Your task to perform on an android device: delete a single message in the gmail app Image 0: 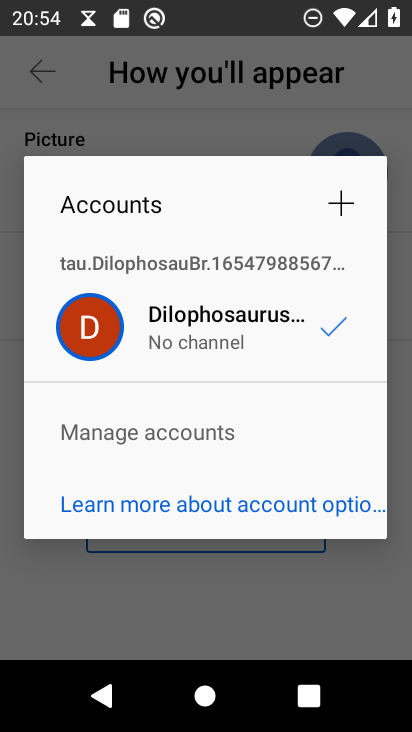
Step 0: press home button
Your task to perform on an android device: delete a single message in the gmail app Image 1: 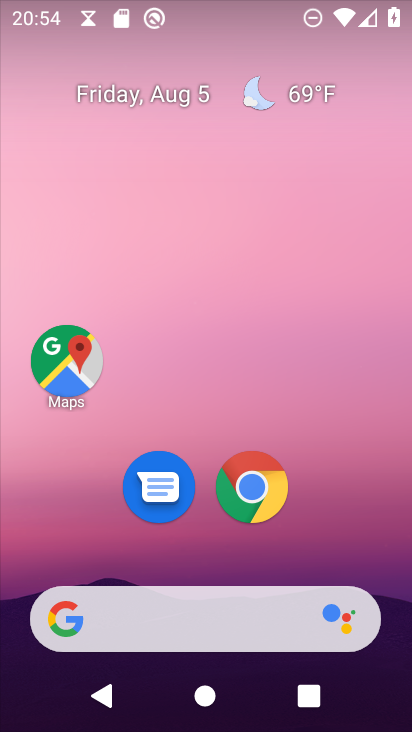
Step 1: drag from (180, 612) to (246, 99)
Your task to perform on an android device: delete a single message in the gmail app Image 2: 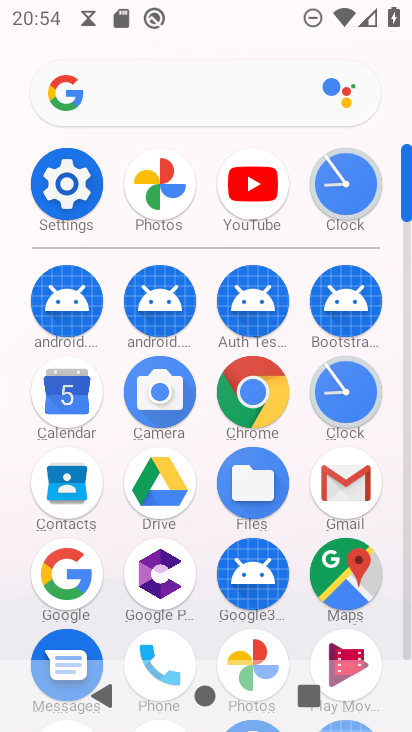
Step 2: click (345, 479)
Your task to perform on an android device: delete a single message in the gmail app Image 3: 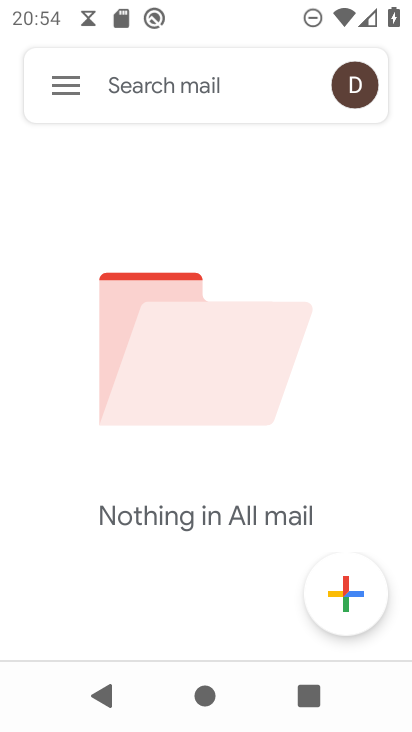
Step 3: task complete